Your task to perform on an android device: Open Yahoo.com Image 0: 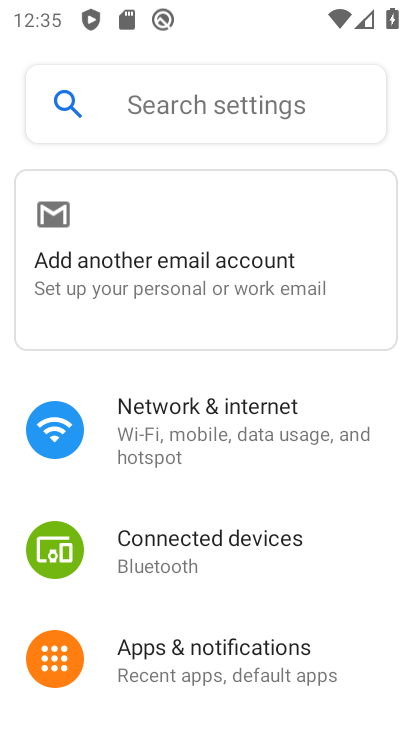
Step 0: press home button
Your task to perform on an android device: Open Yahoo.com Image 1: 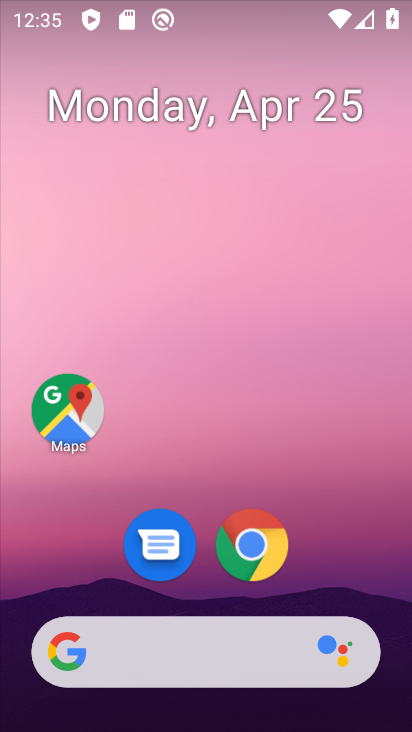
Step 1: click (253, 554)
Your task to perform on an android device: Open Yahoo.com Image 2: 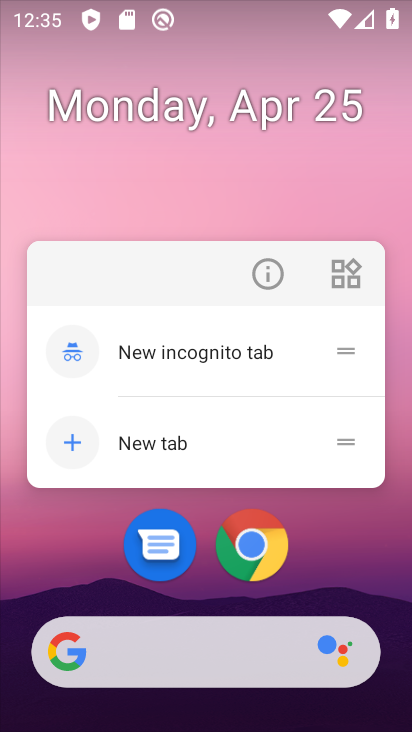
Step 2: click (255, 547)
Your task to perform on an android device: Open Yahoo.com Image 3: 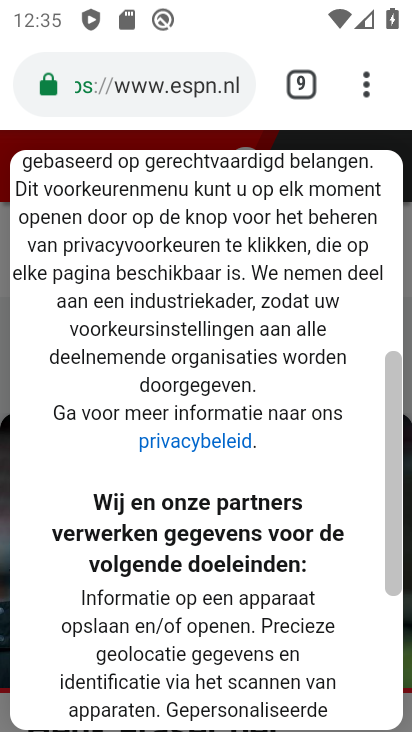
Step 3: click (306, 90)
Your task to perform on an android device: Open Yahoo.com Image 4: 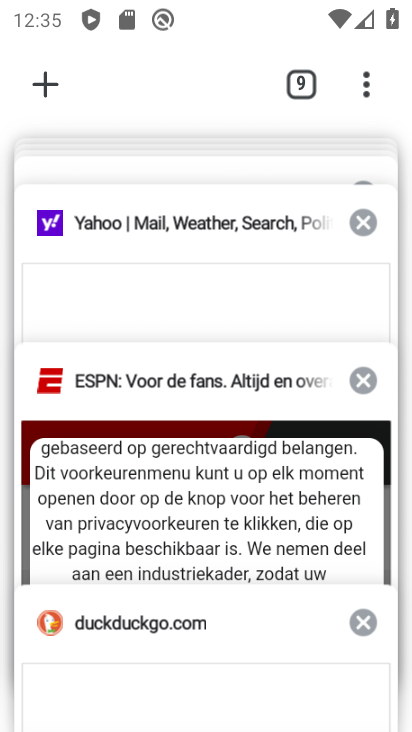
Step 4: click (183, 243)
Your task to perform on an android device: Open Yahoo.com Image 5: 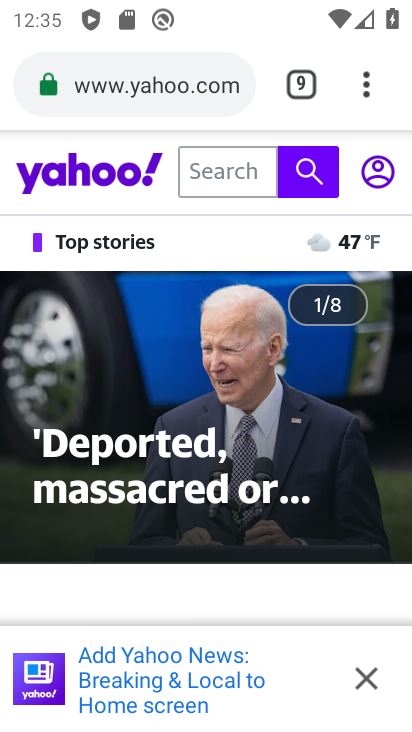
Step 5: task complete